Your task to perform on an android device: Go to settings Image 0: 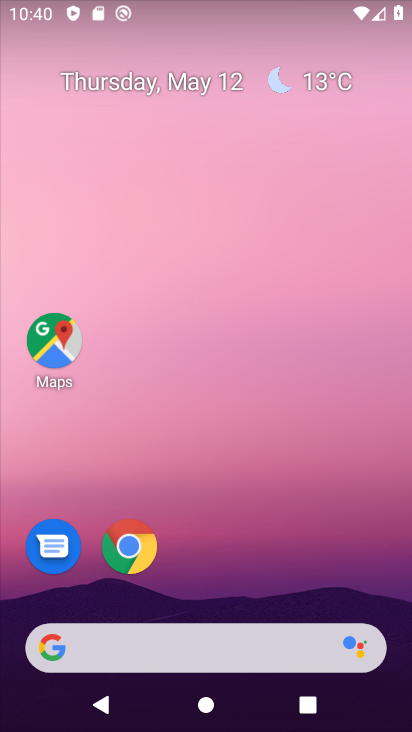
Step 0: drag from (256, 694) to (275, 34)
Your task to perform on an android device: Go to settings Image 1: 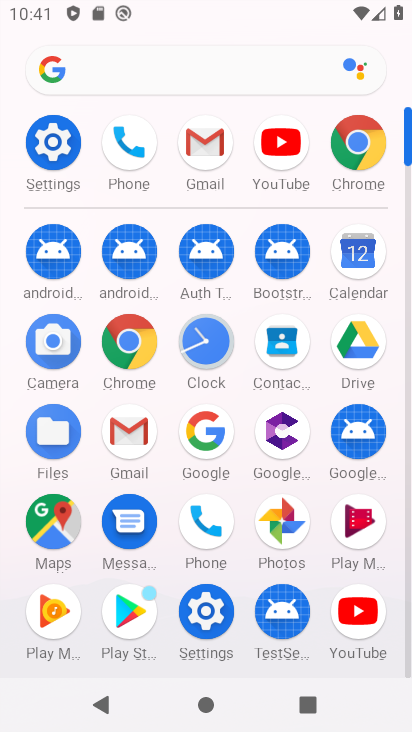
Step 1: click (206, 603)
Your task to perform on an android device: Go to settings Image 2: 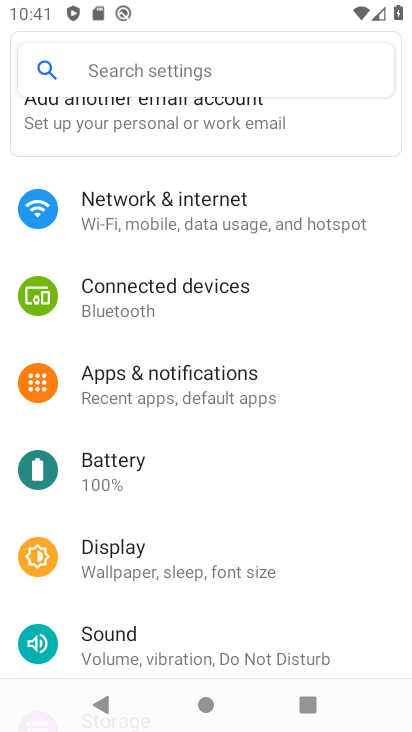
Step 2: task complete